Your task to perform on an android device: Turn off the flashlight Image 0: 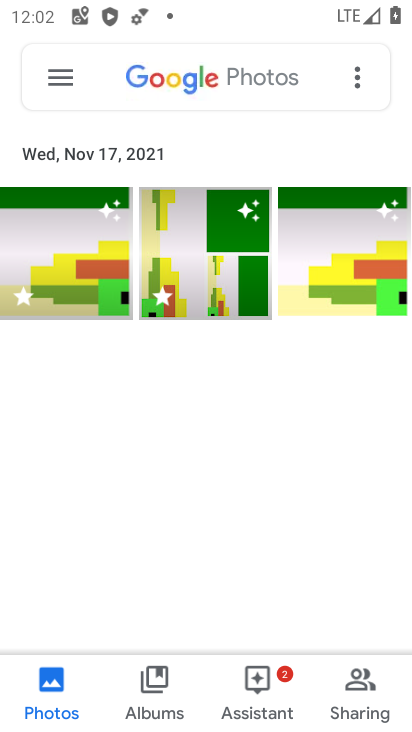
Step 0: press back button
Your task to perform on an android device: Turn off the flashlight Image 1: 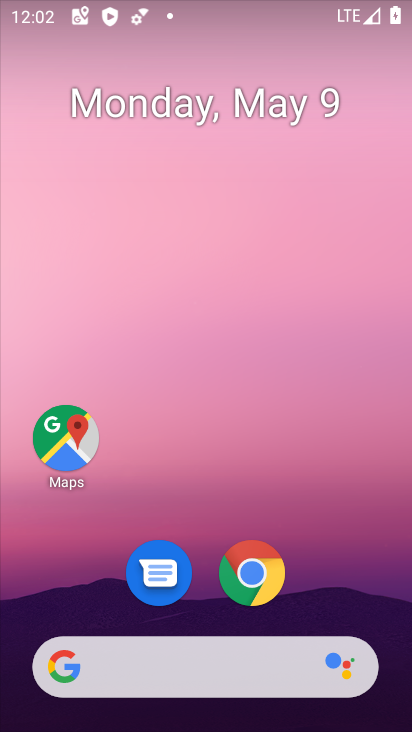
Step 1: drag from (327, 563) to (230, 46)
Your task to perform on an android device: Turn off the flashlight Image 2: 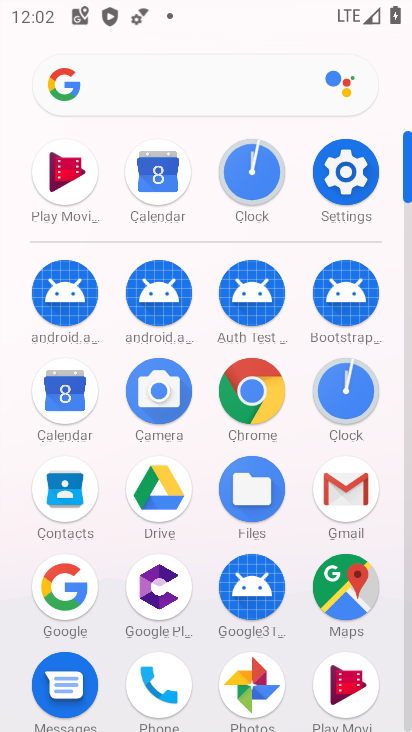
Step 2: drag from (22, 552) to (5, 224)
Your task to perform on an android device: Turn off the flashlight Image 3: 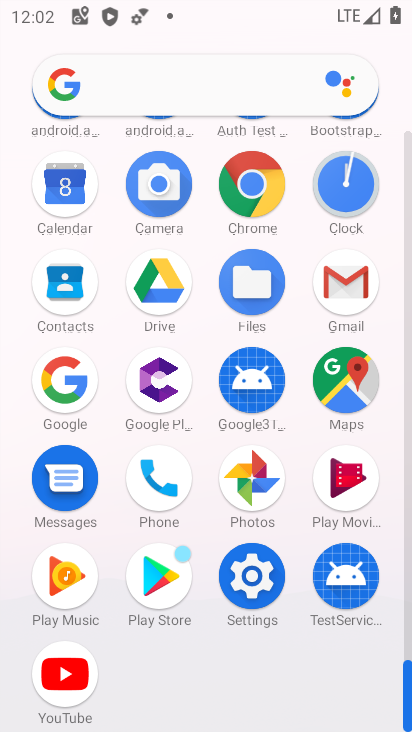
Step 3: click (250, 575)
Your task to perform on an android device: Turn off the flashlight Image 4: 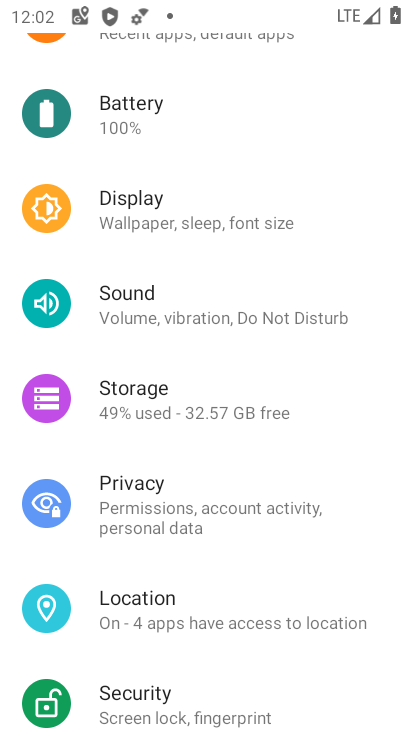
Step 4: drag from (292, 599) to (292, 190)
Your task to perform on an android device: Turn off the flashlight Image 5: 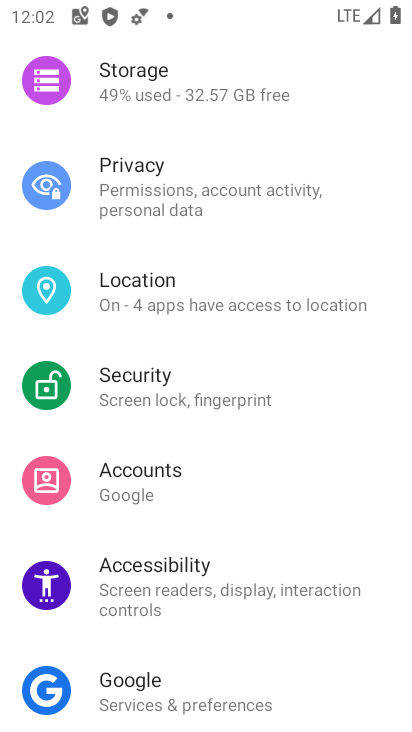
Step 5: drag from (251, 329) to (270, 611)
Your task to perform on an android device: Turn off the flashlight Image 6: 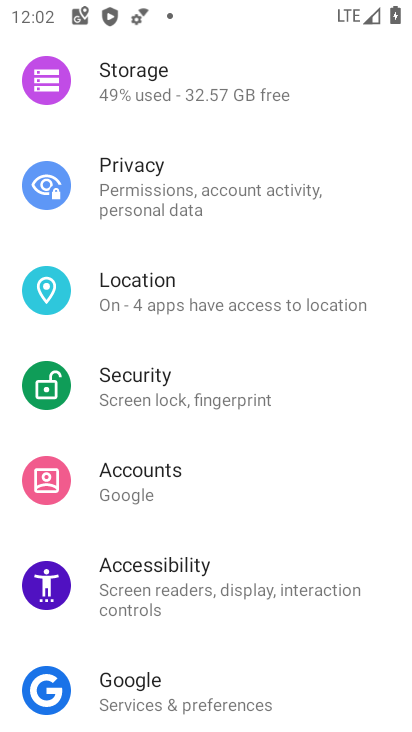
Step 6: drag from (244, 88) to (281, 478)
Your task to perform on an android device: Turn off the flashlight Image 7: 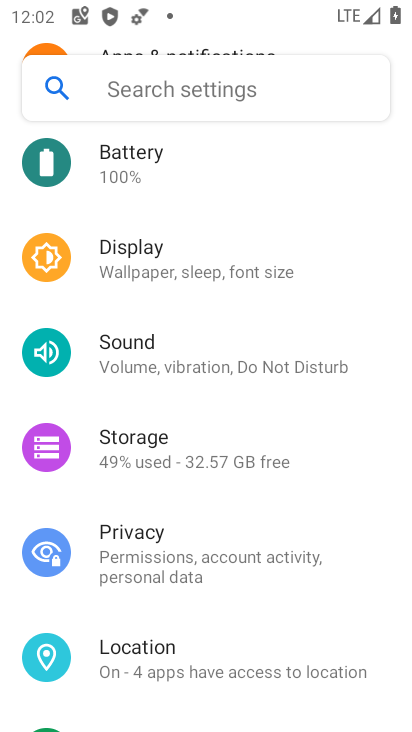
Step 7: drag from (279, 286) to (286, 603)
Your task to perform on an android device: Turn off the flashlight Image 8: 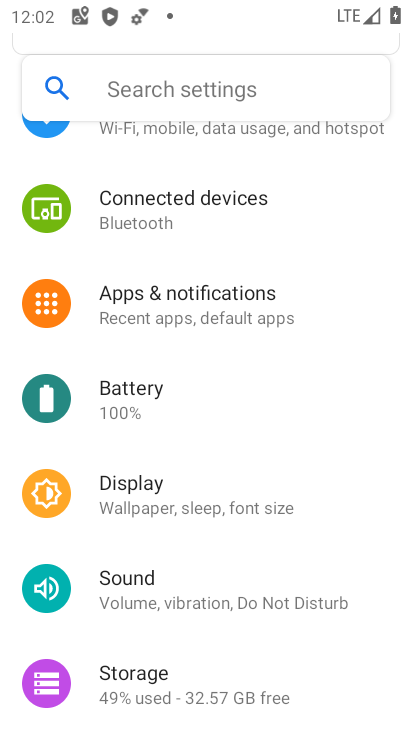
Step 8: drag from (261, 212) to (289, 652)
Your task to perform on an android device: Turn off the flashlight Image 9: 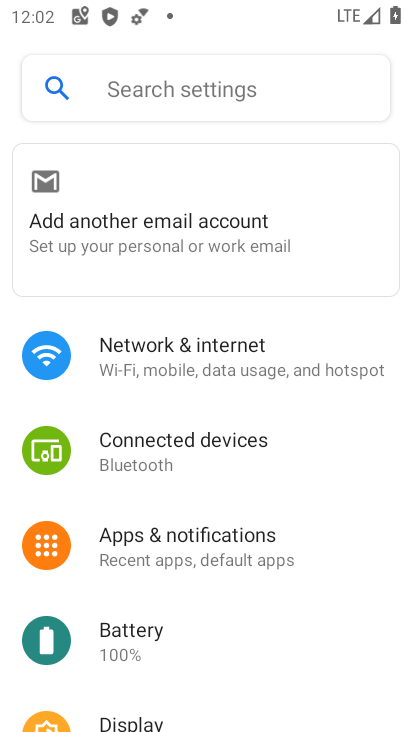
Step 9: click (238, 351)
Your task to perform on an android device: Turn off the flashlight Image 10: 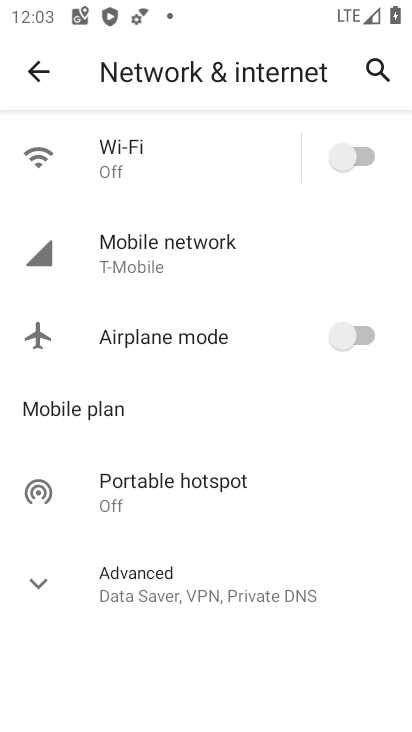
Step 10: click (29, 578)
Your task to perform on an android device: Turn off the flashlight Image 11: 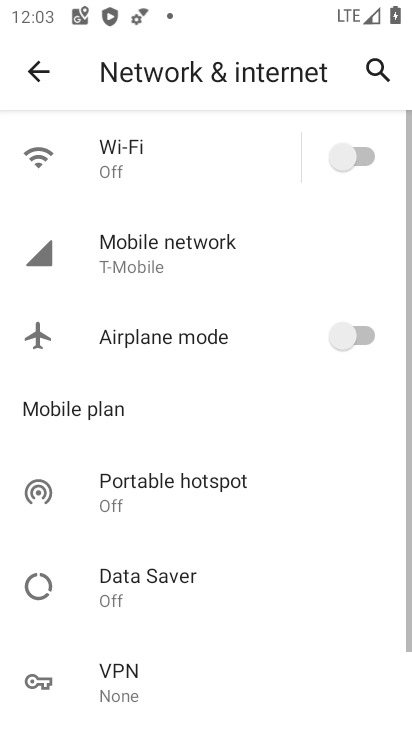
Step 11: task complete